Your task to perform on an android device: turn on showing notifications on the lock screen Image 0: 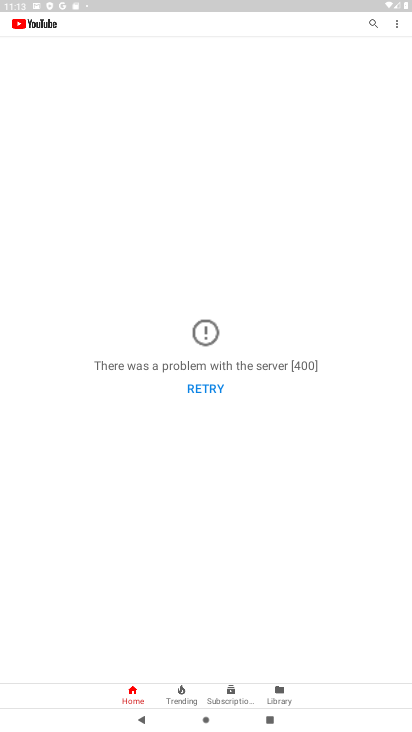
Step 0: press home button
Your task to perform on an android device: turn on showing notifications on the lock screen Image 1: 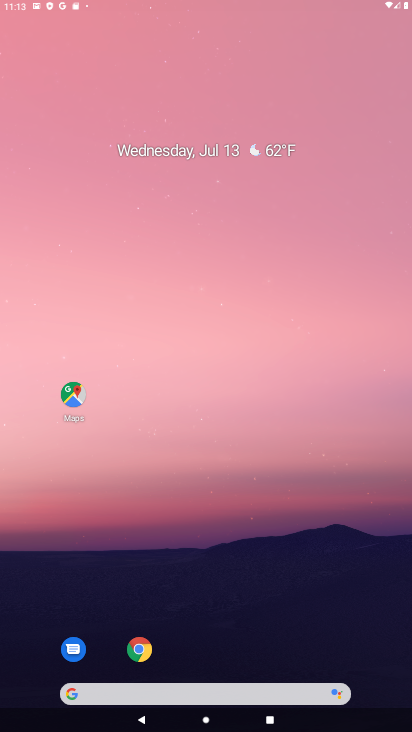
Step 1: drag from (384, 662) to (258, 26)
Your task to perform on an android device: turn on showing notifications on the lock screen Image 2: 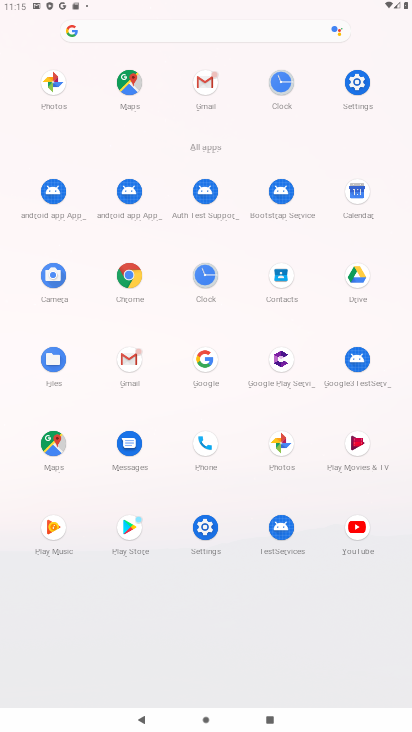
Step 2: click (218, 528)
Your task to perform on an android device: turn on showing notifications on the lock screen Image 3: 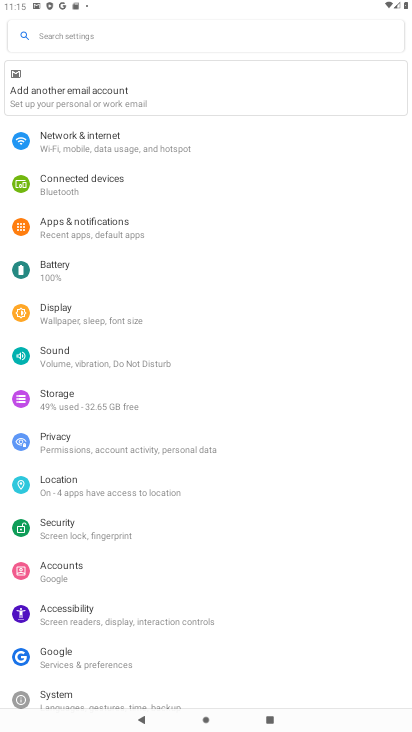
Step 3: click (74, 238)
Your task to perform on an android device: turn on showing notifications on the lock screen Image 4: 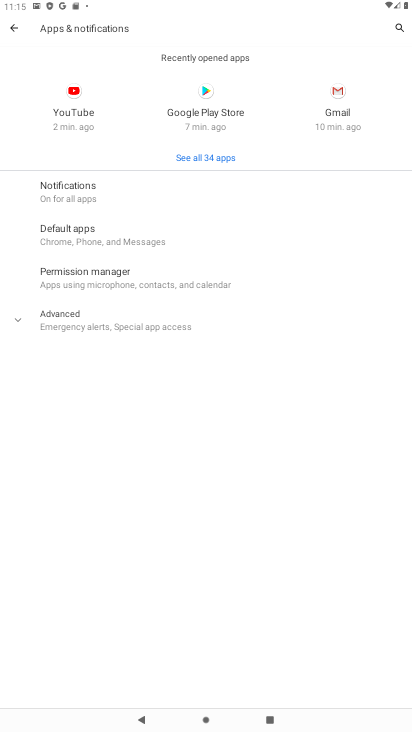
Step 4: click (96, 193)
Your task to perform on an android device: turn on showing notifications on the lock screen Image 5: 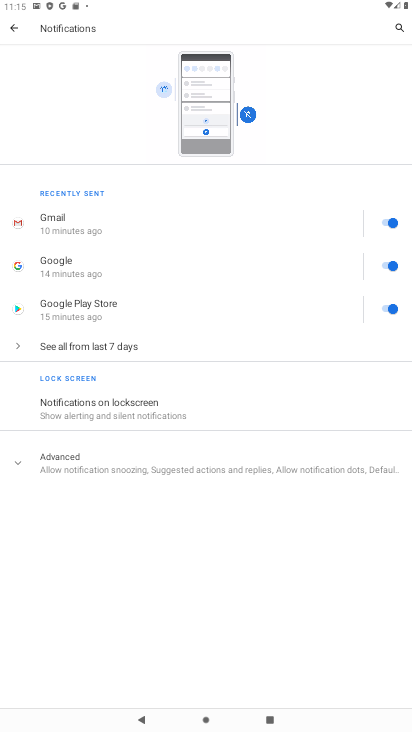
Step 5: click (86, 404)
Your task to perform on an android device: turn on showing notifications on the lock screen Image 6: 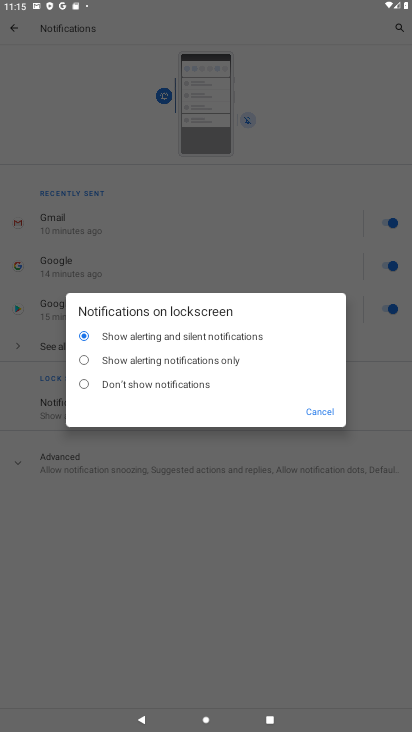
Step 6: task complete